Your task to perform on an android device: turn on the 12-hour format for clock Image 0: 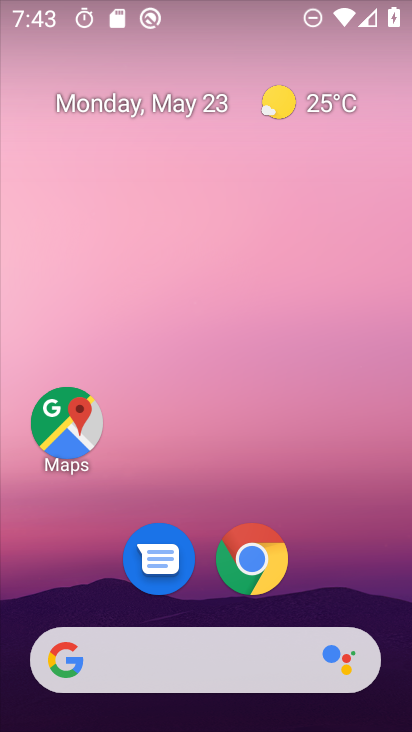
Step 0: drag from (398, 632) to (304, 3)
Your task to perform on an android device: turn on the 12-hour format for clock Image 1: 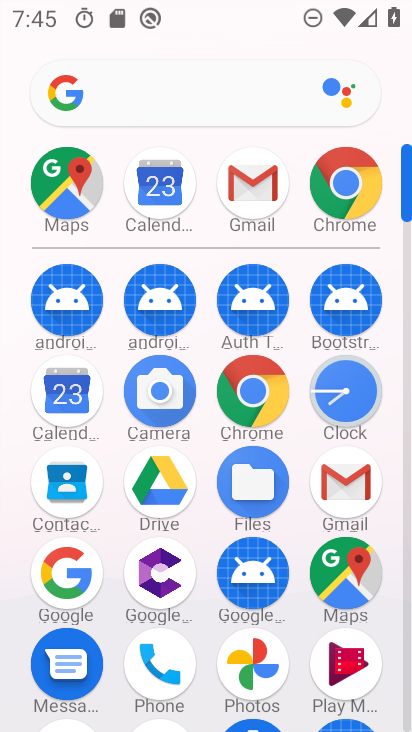
Step 1: click (351, 397)
Your task to perform on an android device: turn on the 12-hour format for clock Image 2: 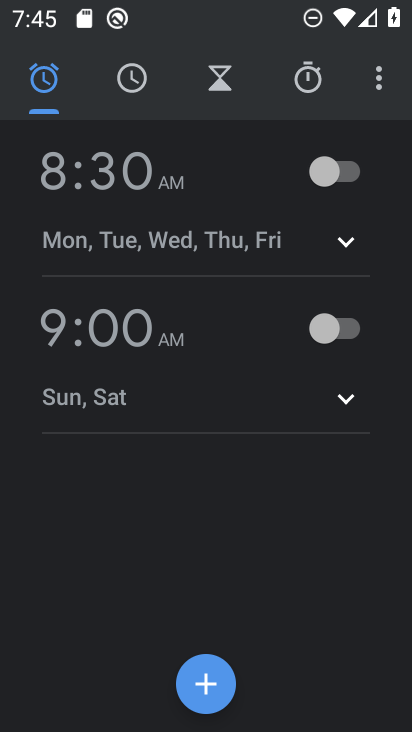
Step 2: click (378, 67)
Your task to perform on an android device: turn on the 12-hour format for clock Image 3: 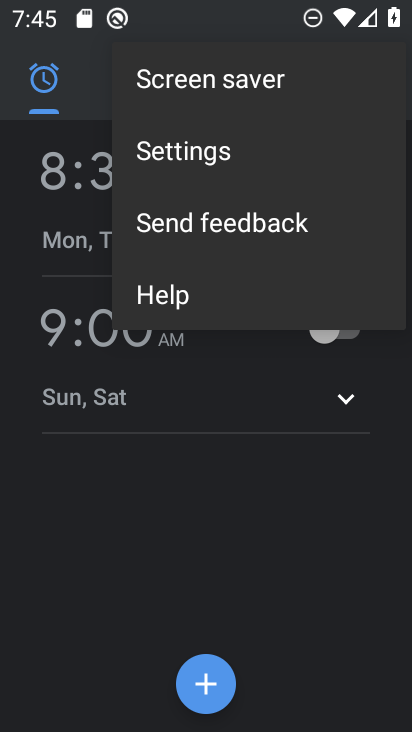
Step 3: click (167, 150)
Your task to perform on an android device: turn on the 12-hour format for clock Image 4: 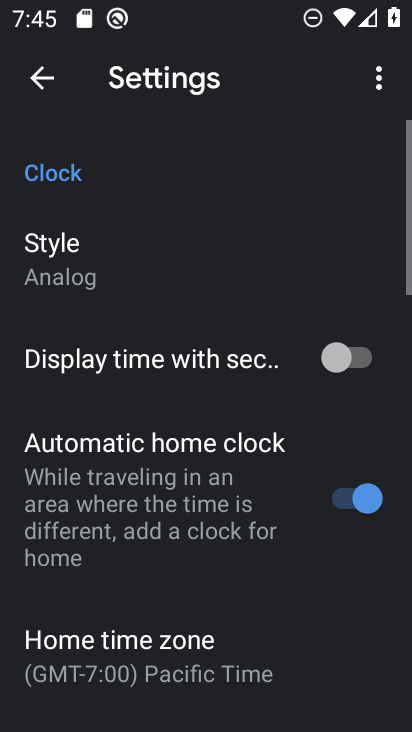
Step 4: drag from (159, 656) to (158, 286)
Your task to perform on an android device: turn on the 12-hour format for clock Image 5: 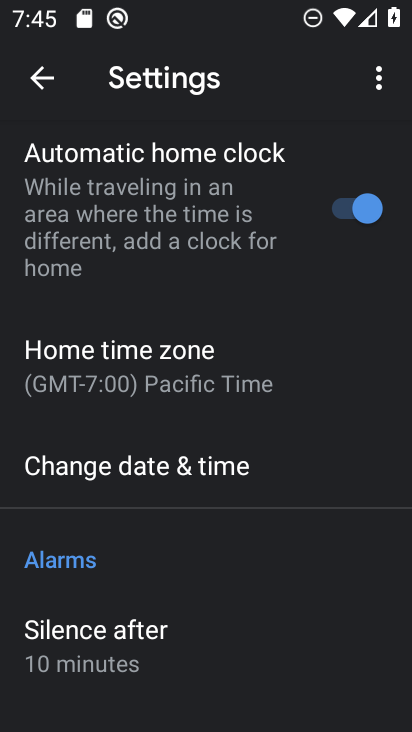
Step 5: click (176, 465)
Your task to perform on an android device: turn on the 12-hour format for clock Image 6: 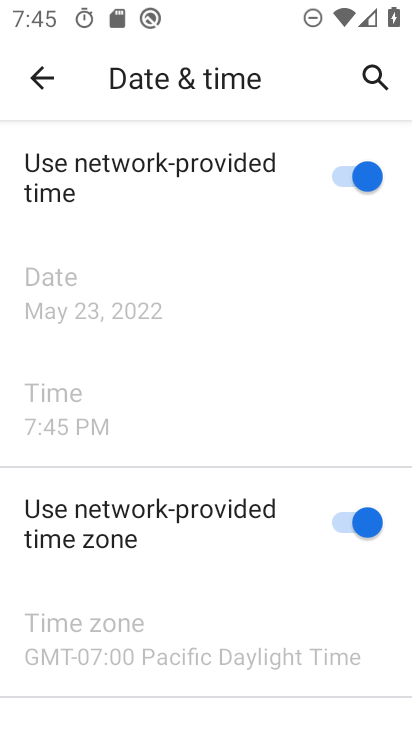
Step 6: task complete